Your task to perform on an android device: Search for sushi restaurants on Maps Image 0: 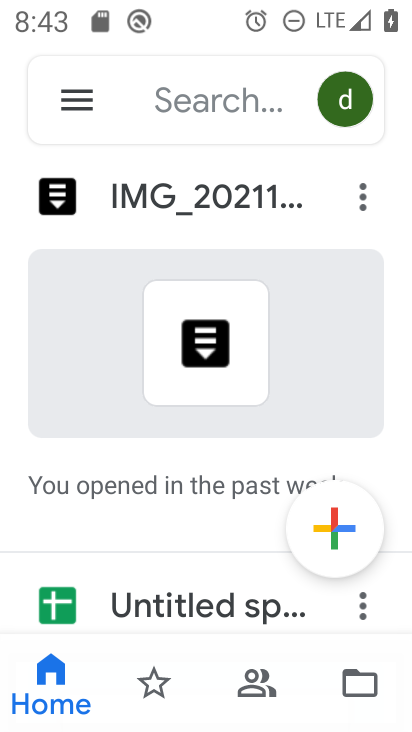
Step 0: drag from (223, 567) to (216, 398)
Your task to perform on an android device: Search for sushi restaurants on Maps Image 1: 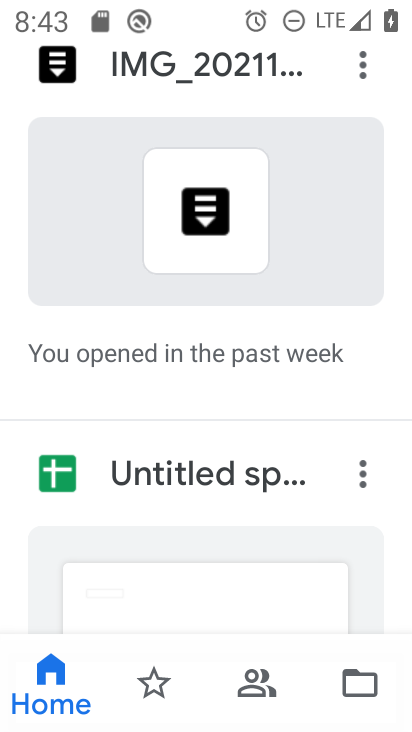
Step 1: press home button
Your task to perform on an android device: Search for sushi restaurants on Maps Image 2: 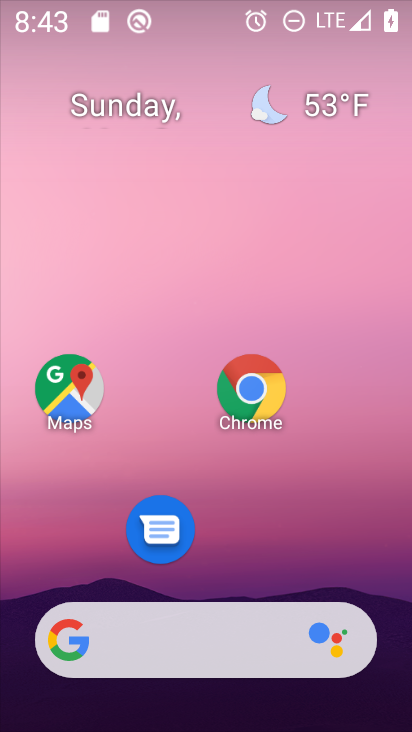
Step 2: click (62, 398)
Your task to perform on an android device: Search for sushi restaurants on Maps Image 3: 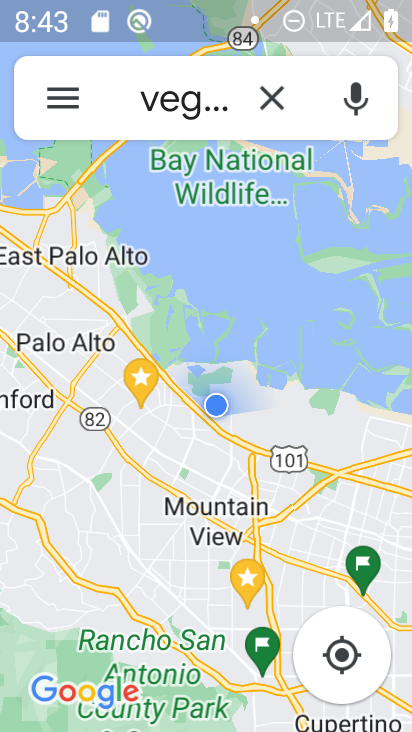
Step 3: click (279, 103)
Your task to perform on an android device: Search for sushi restaurants on Maps Image 4: 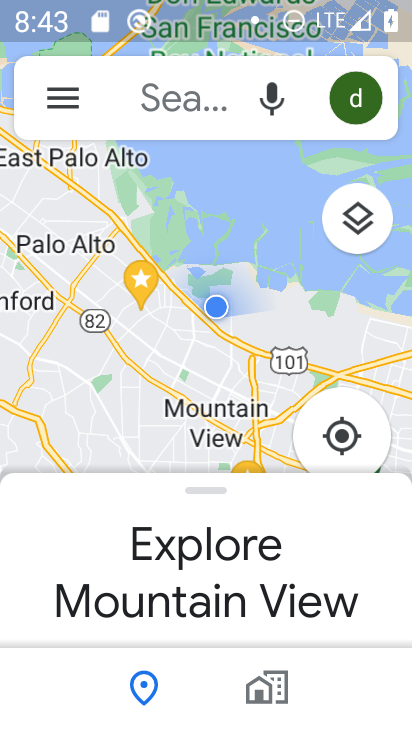
Step 4: click (192, 109)
Your task to perform on an android device: Search for sushi restaurants on Maps Image 5: 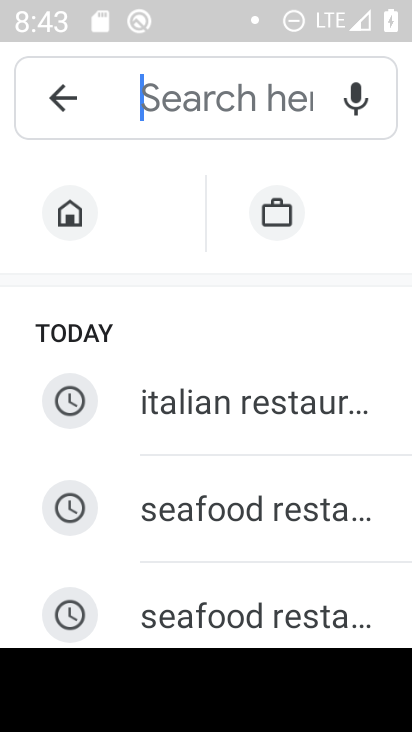
Step 5: type "sushi restaurants"
Your task to perform on an android device: Search for sushi restaurants on Maps Image 6: 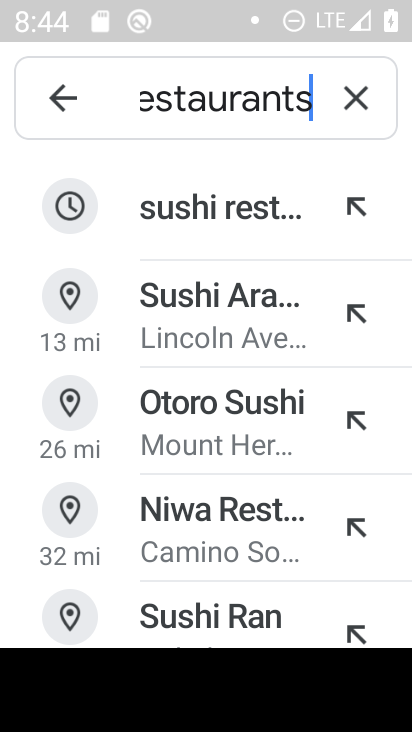
Step 6: click (202, 211)
Your task to perform on an android device: Search for sushi restaurants on Maps Image 7: 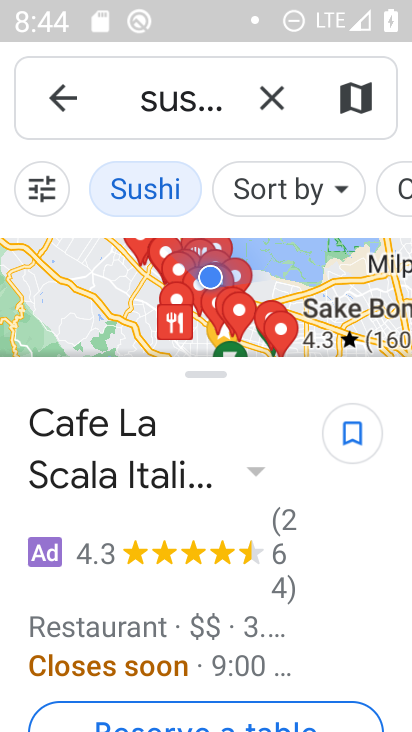
Step 7: task complete